Your task to perform on an android device: delete browsing data in the chrome app Image 0: 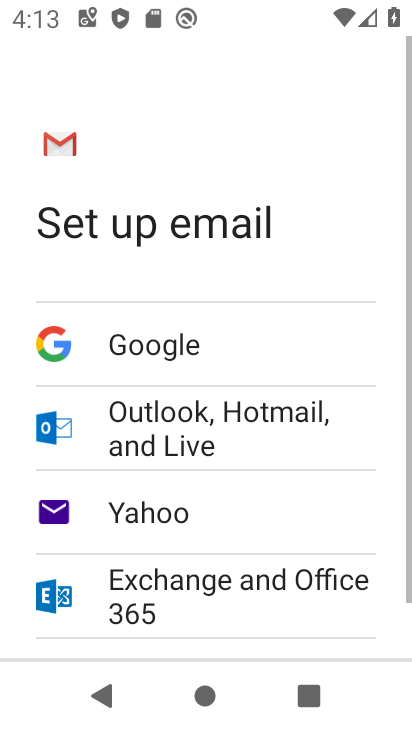
Step 0: press home button
Your task to perform on an android device: delete browsing data in the chrome app Image 1: 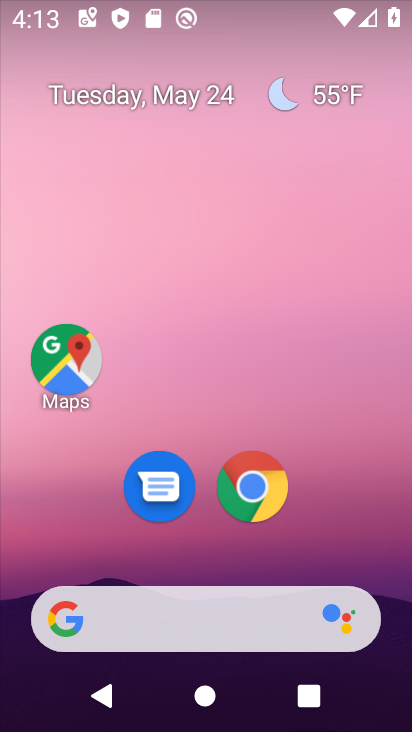
Step 1: click (260, 486)
Your task to perform on an android device: delete browsing data in the chrome app Image 2: 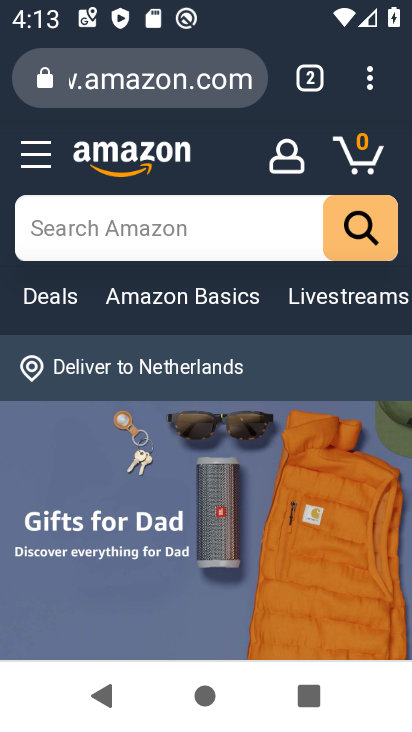
Step 2: click (367, 85)
Your task to perform on an android device: delete browsing data in the chrome app Image 3: 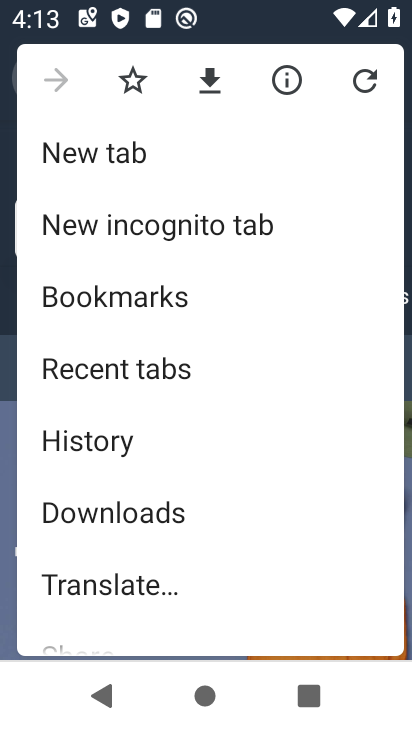
Step 3: drag from (223, 472) to (177, 212)
Your task to perform on an android device: delete browsing data in the chrome app Image 4: 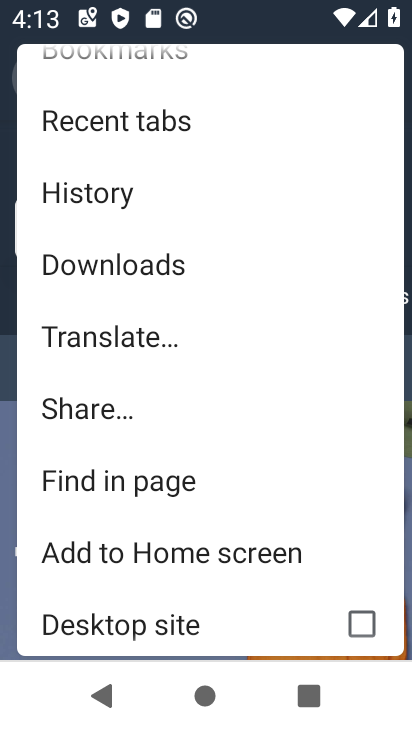
Step 4: drag from (242, 501) to (192, 169)
Your task to perform on an android device: delete browsing data in the chrome app Image 5: 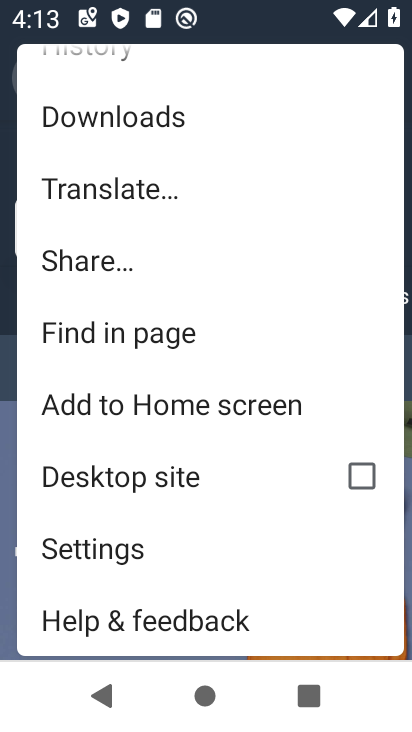
Step 5: click (199, 542)
Your task to perform on an android device: delete browsing data in the chrome app Image 6: 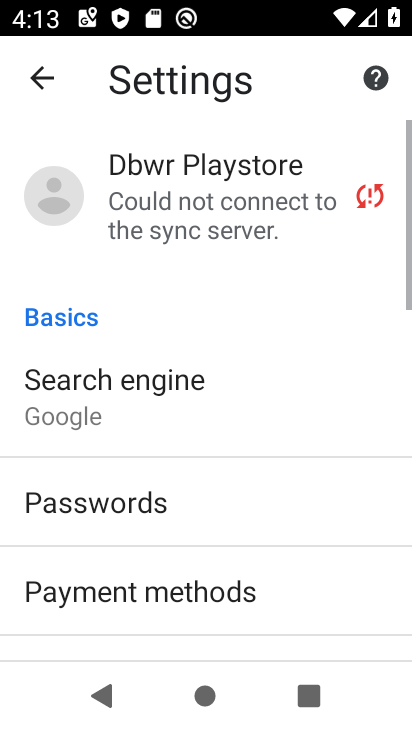
Step 6: drag from (192, 540) to (146, 205)
Your task to perform on an android device: delete browsing data in the chrome app Image 7: 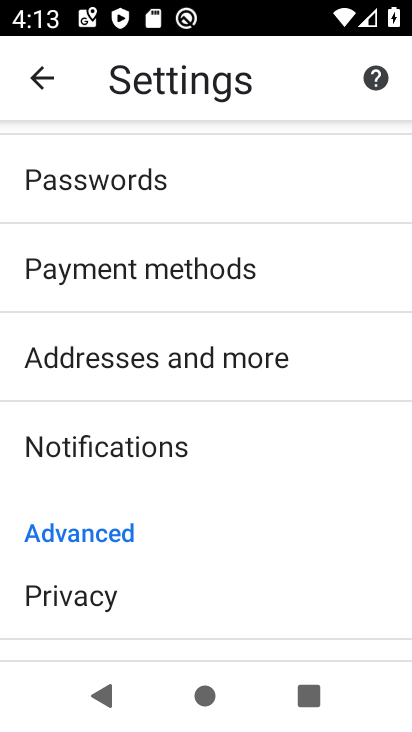
Step 7: drag from (164, 518) to (124, 189)
Your task to perform on an android device: delete browsing data in the chrome app Image 8: 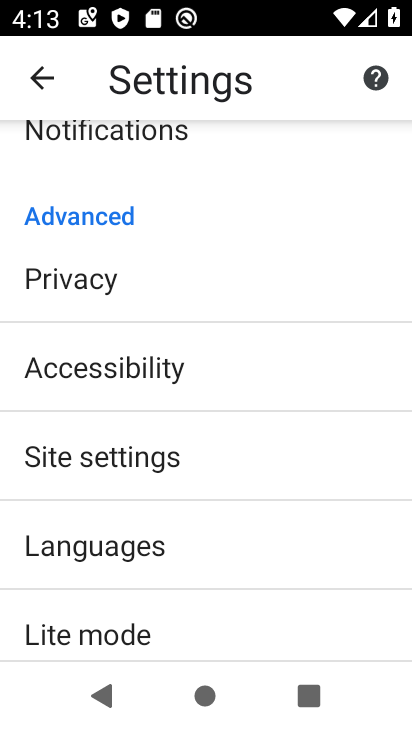
Step 8: drag from (172, 534) to (125, 259)
Your task to perform on an android device: delete browsing data in the chrome app Image 9: 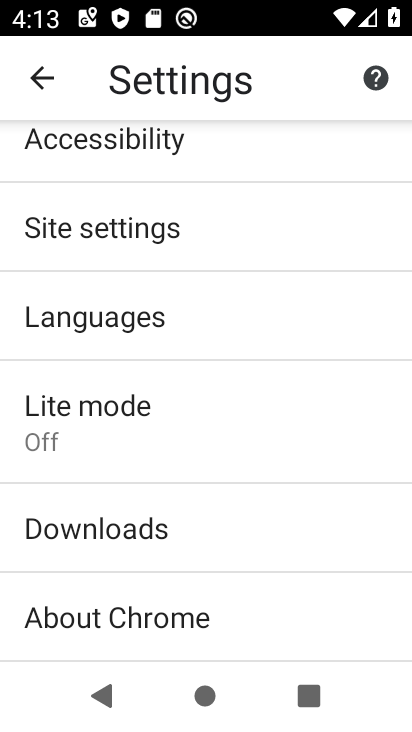
Step 9: drag from (147, 514) to (109, 265)
Your task to perform on an android device: delete browsing data in the chrome app Image 10: 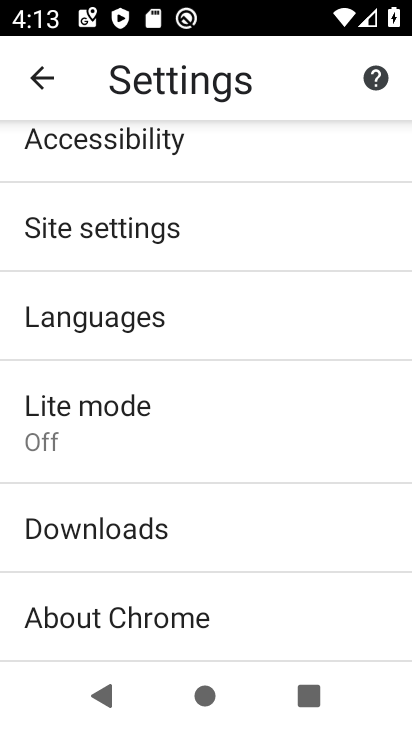
Step 10: drag from (180, 239) to (217, 536)
Your task to perform on an android device: delete browsing data in the chrome app Image 11: 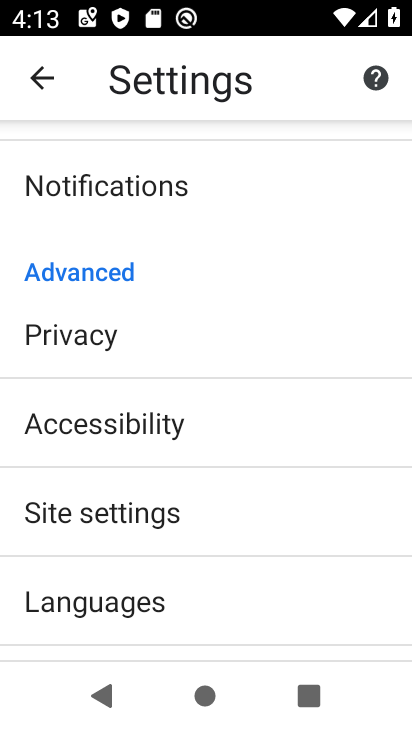
Step 11: click (123, 328)
Your task to perform on an android device: delete browsing data in the chrome app Image 12: 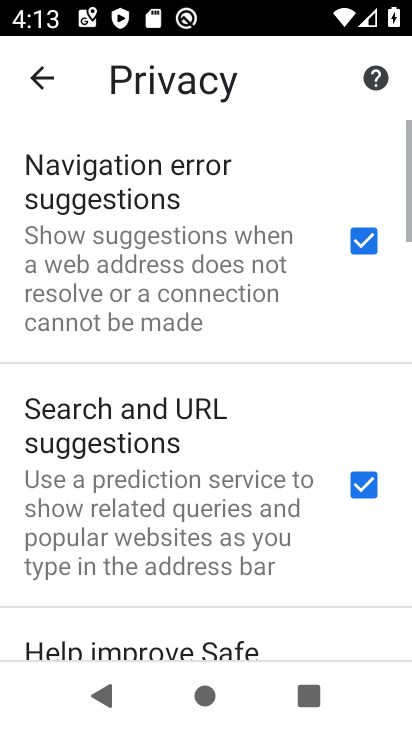
Step 12: drag from (146, 510) to (116, 253)
Your task to perform on an android device: delete browsing data in the chrome app Image 13: 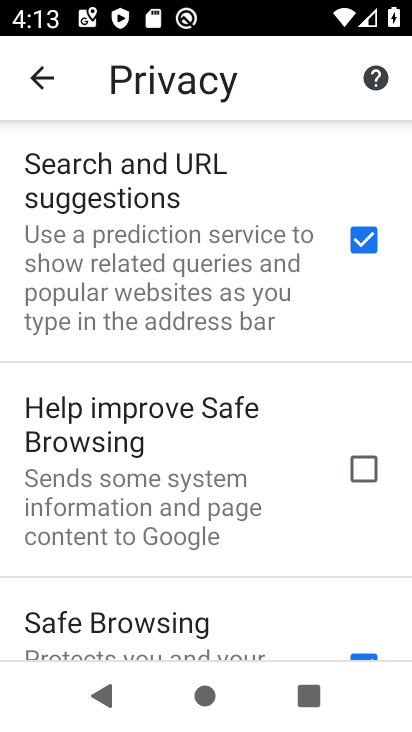
Step 13: drag from (202, 582) to (159, 304)
Your task to perform on an android device: delete browsing data in the chrome app Image 14: 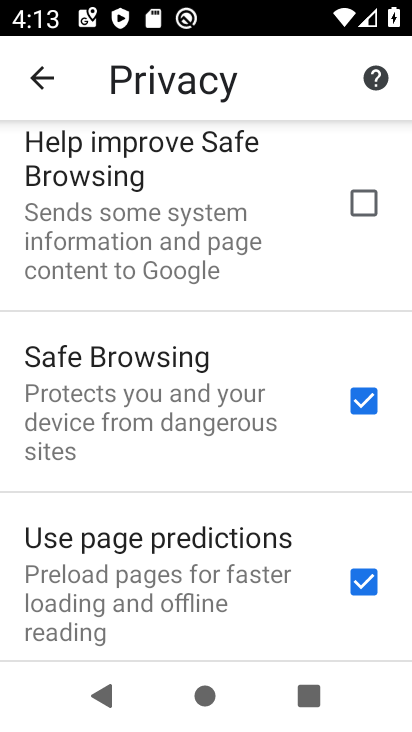
Step 14: drag from (185, 519) to (146, 165)
Your task to perform on an android device: delete browsing data in the chrome app Image 15: 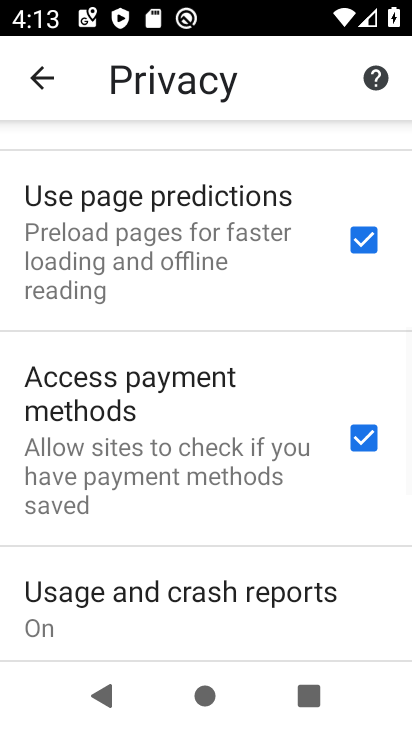
Step 15: drag from (223, 511) to (168, 176)
Your task to perform on an android device: delete browsing data in the chrome app Image 16: 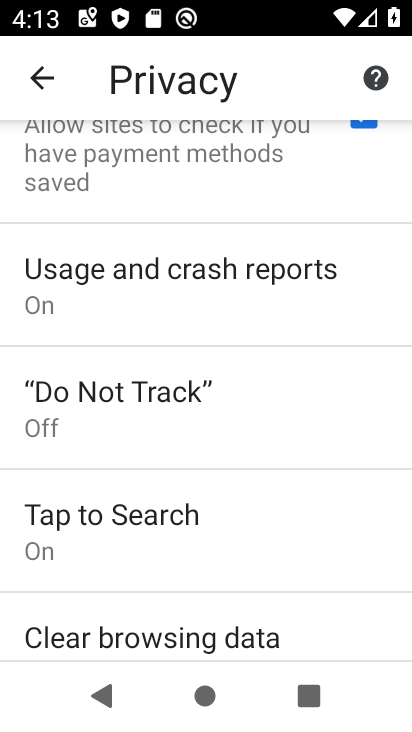
Step 16: drag from (224, 510) to (179, 215)
Your task to perform on an android device: delete browsing data in the chrome app Image 17: 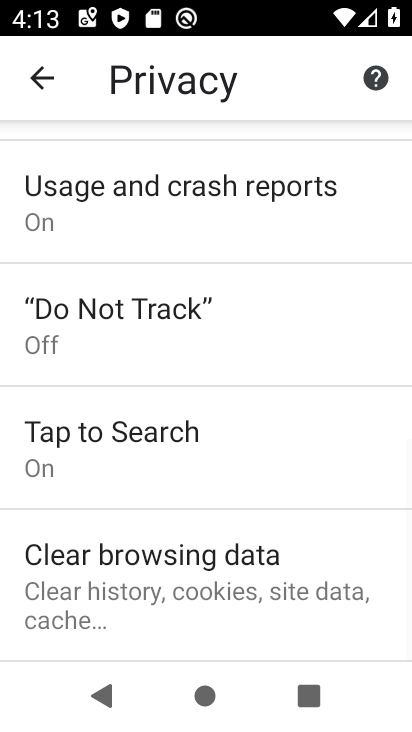
Step 17: click (173, 553)
Your task to perform on an android device: delete browsing data in the chrome app Image 18: 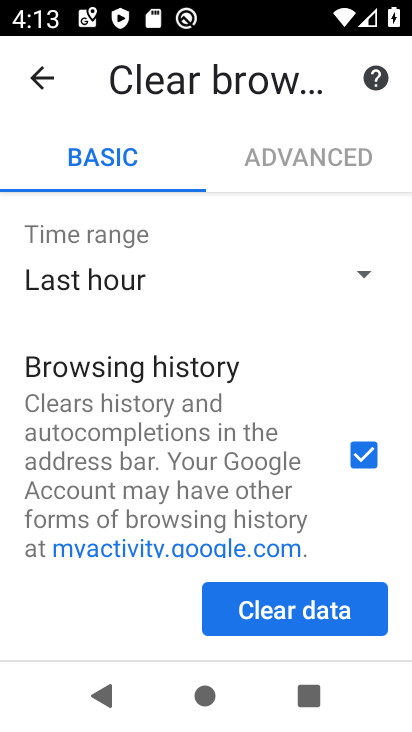
Step 18: drag from (179, 303) to (197, 535)
Your task to perform on an android device: delete browsing data in the chrome app Image 19: 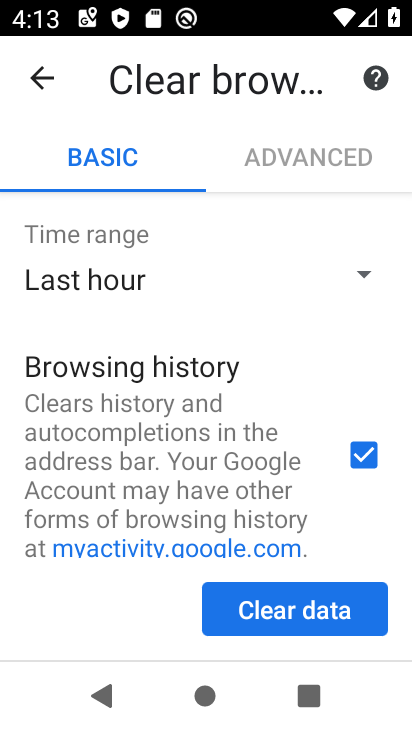
Step 19: drag from (182, 528) to (158, 261)
Your task to perform on an android device: delete browsing data in the chrome app Image 20: 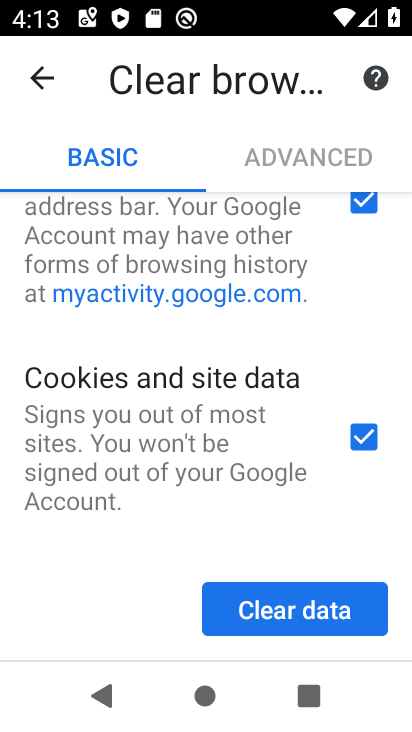
Step 20: click (355, 433)
Your task to perform on an android device: delete browsing data in the chrome app Image 21: 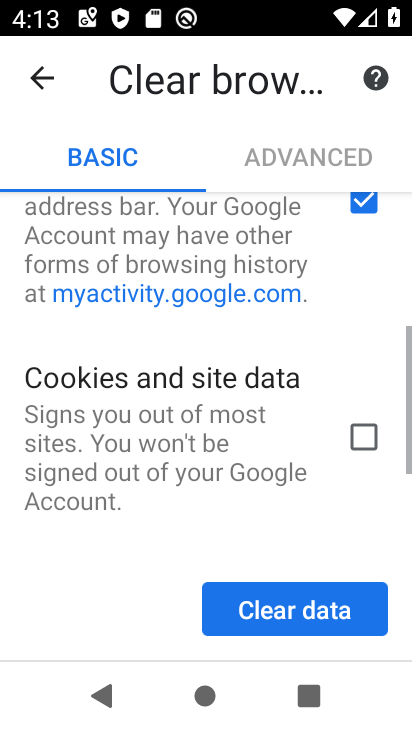
Step 21: drag from (304, 464) to (257, 191)
Your task to perform on an android device: delete browsing data in the chrome app Image 22: 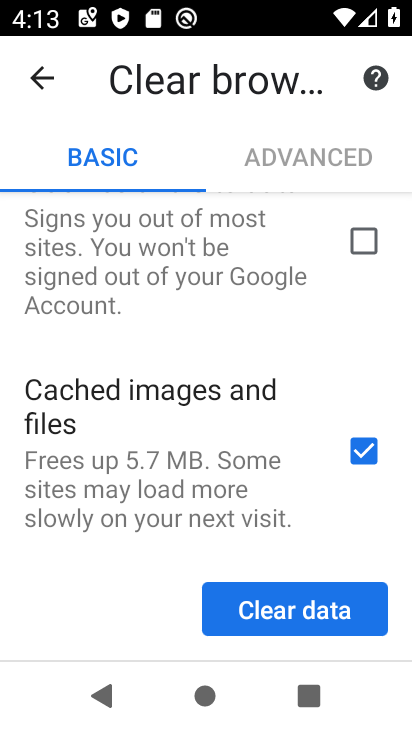
Step 22: click (368, 448)
Your task to perform on an android device: delete browsing data in the chrome app Image 23: 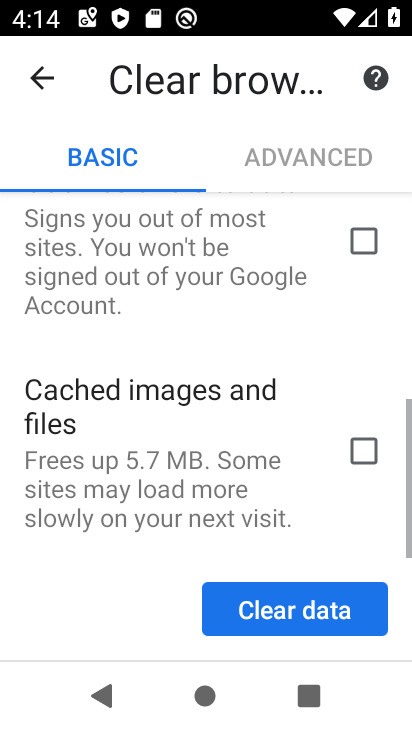
Step 23: drag from (258, 513) to (223, 239)
Your task to perform on an android device: delete browsing data in the chrome app Image 24: 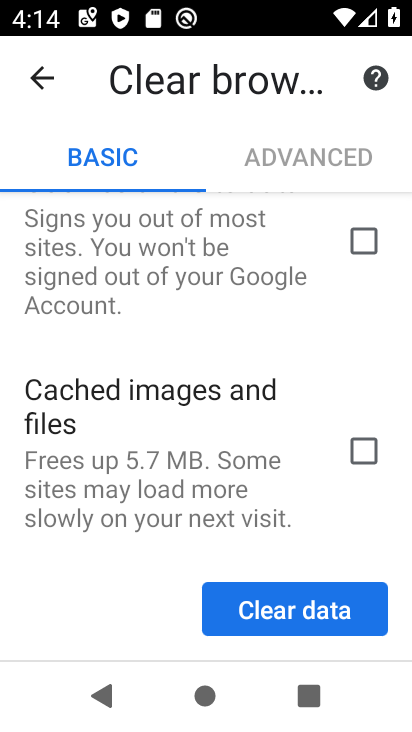
Step 24: click (286, 605)
Your task to perform on an android device: delete browsing data in the chrome app Image 25: 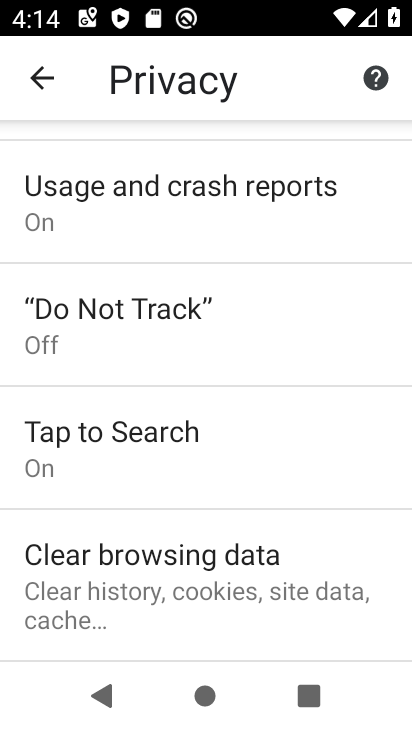
Step 25: click (232, 575)
Your task to perform on an android device: delete browsing data in the chrome app Image 26: 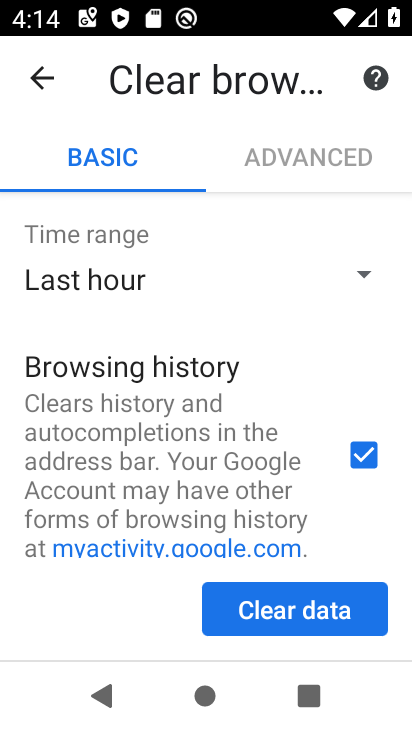
Step 26: task complete